Your task to perform on an android device: see sites visited before in the chrome app Image 0: 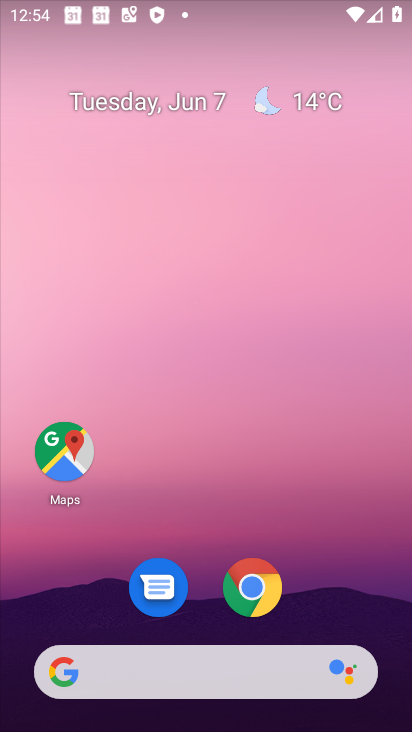
Step 0: drag from (246, 620) to (212, 245)
Your task to perform on an android device: see sites visited before in the chrome app Image 1: 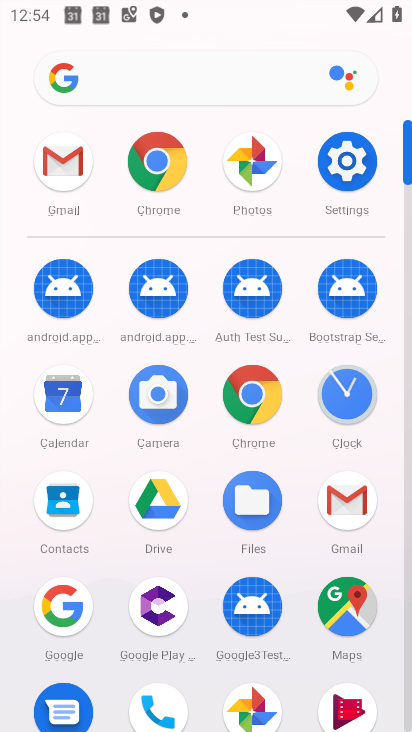
Step 1: click (242, 396)
Your task to perform on an android device: see sites visited before in the chrome app Image 2: 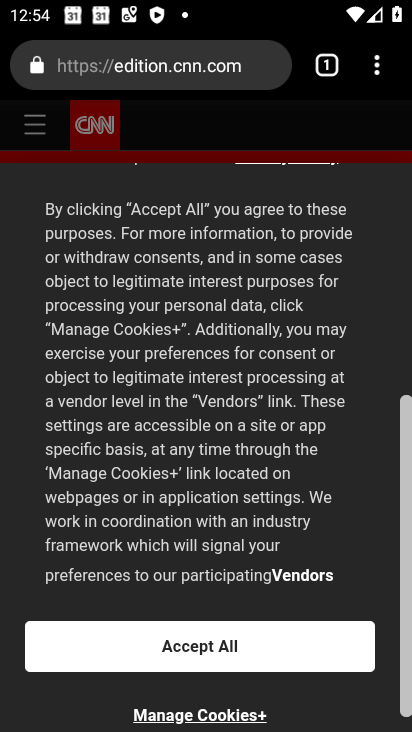
Step 2: click (389, 74)
Your task to perform on an android device: see sites visited before in the chrome app Image 3: 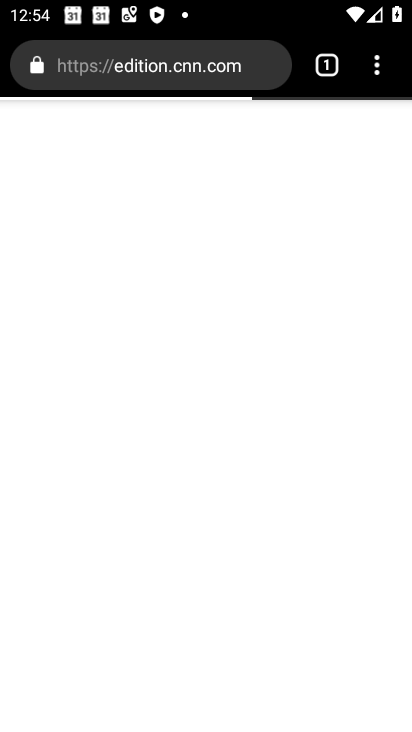
Step 3: click (381, 72)
Your task to perform on an android device: see sites visited before in the chrome app Image 4: 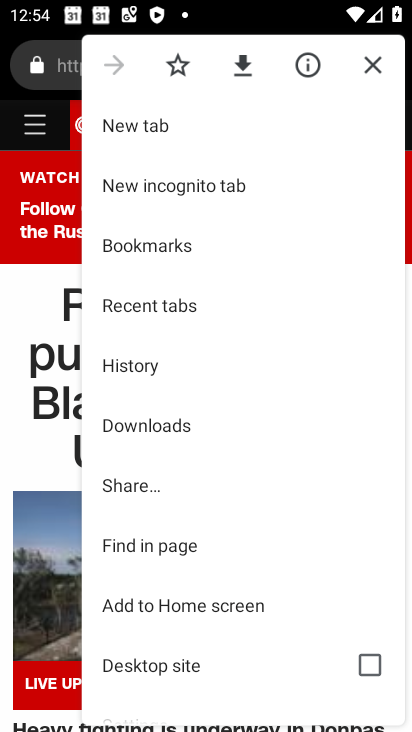
Step 4: click (181, 359)
Your task to perform on an android device: see sites visited before in the chrome app Image 5: 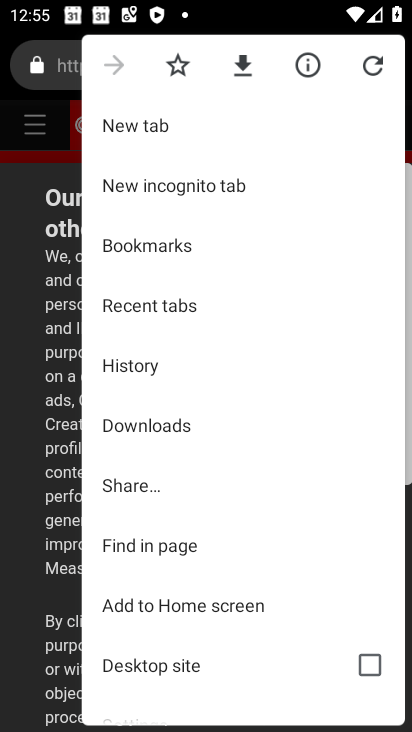
Step 5: click (164, 362)
Your task to perform on an android device: see sites visited before in the chrome app Image 6: 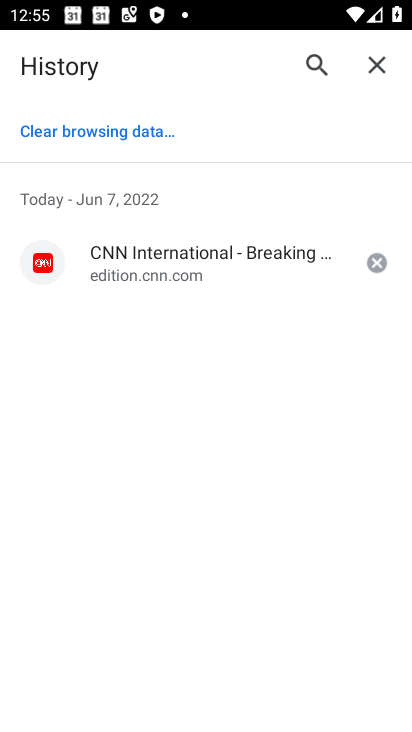
Step 6: task complete